Your task to perform on an android device: Open privacy settings Image 0: 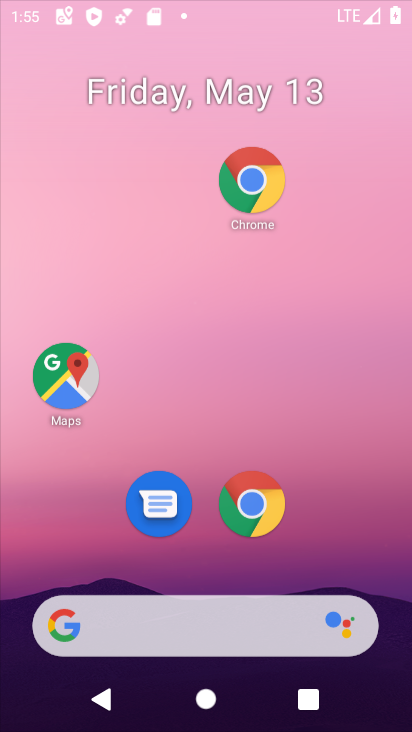
Step 0: click (237, 208)
Your task to perform on an android device: Open privacy settings Image 1: 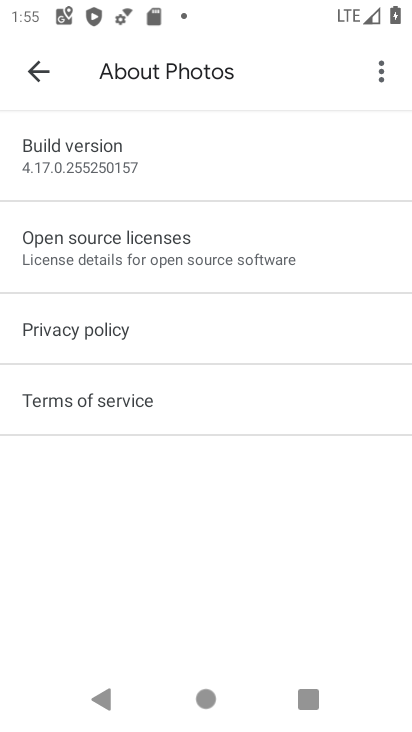
Step 1: press back button
Your task to perform on an android device: Open privacy settings Image 2: 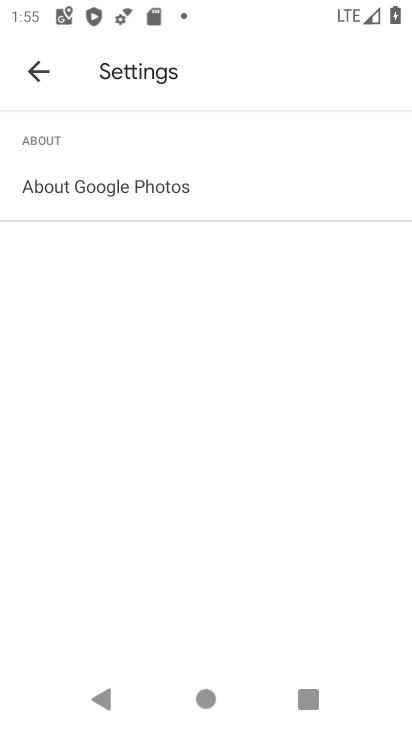
Step 2: press home button
Your task to perform on an android device: Open privacy settings Image 3: 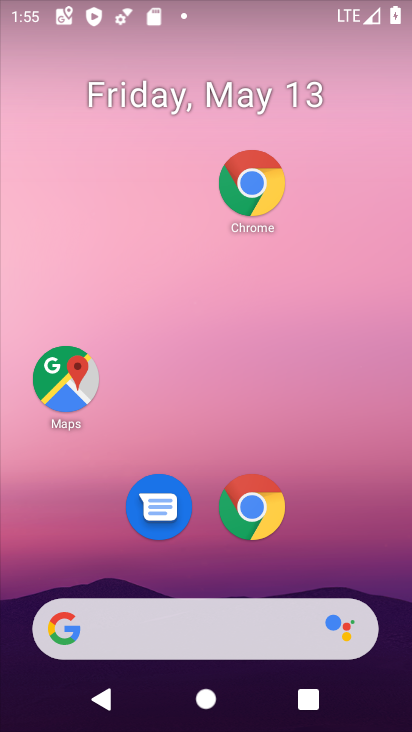
Step 3: drag from (254, 537) to (139, 130)
Your task to perform on an android device: Open privacy settings Image 4: 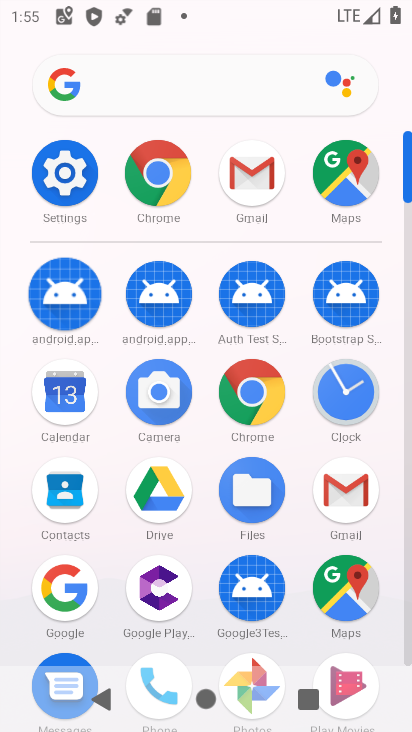
Step 4: click (63, 181)
Your task to perform on an android device: Open privacy settings Image 5: 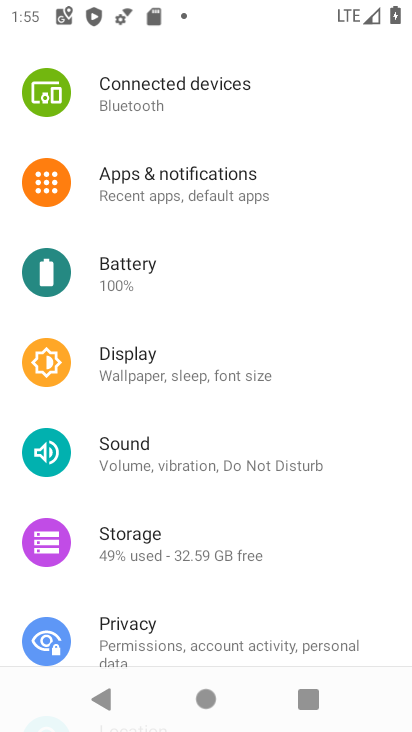
Step 5: click (129, 635)
Your task to perform on an android device: Open privacy settings Image 6: 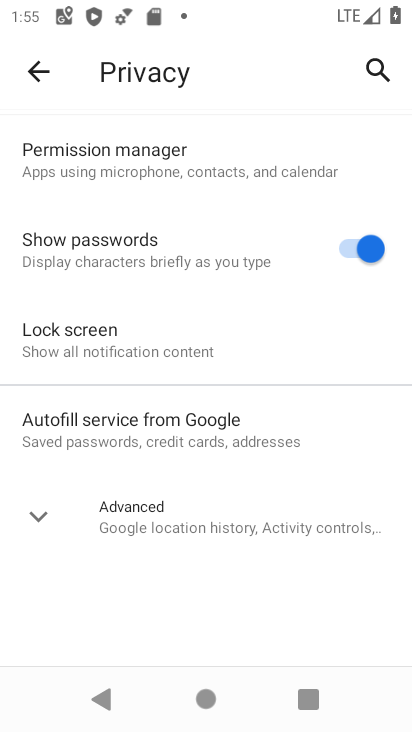
Step 6: task complete